Your task to perform on an android device: Go to accessibility settings Image 0: 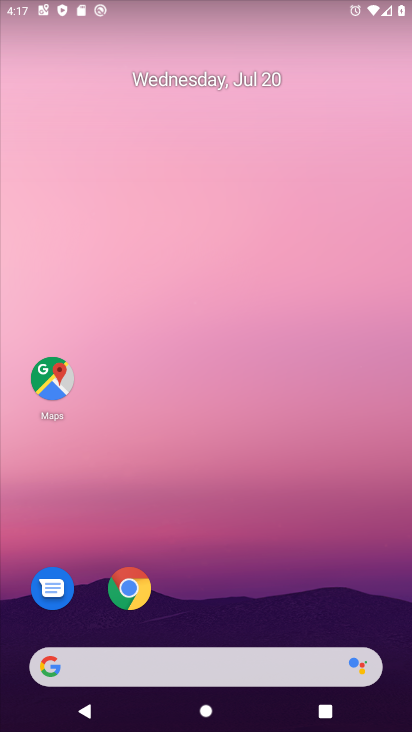
Step 0: drag from (276, 588) to (289, 21)
Your task to perform on an android device: Go to accessibility settings Image 1: 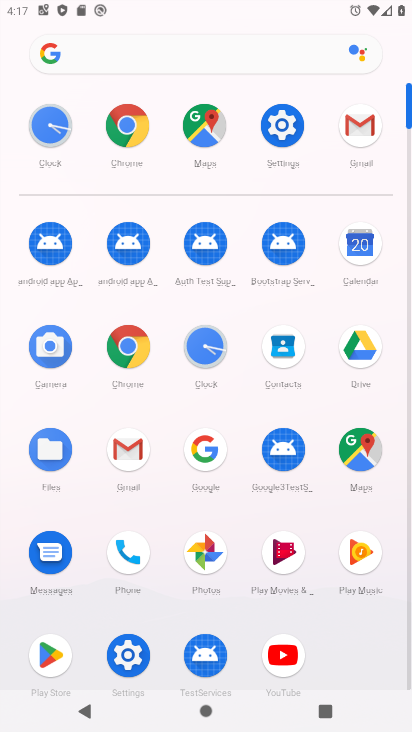
Step 1: click (284, 127)
Your task to perform on an android device: Go to accessibility settings Image 2: 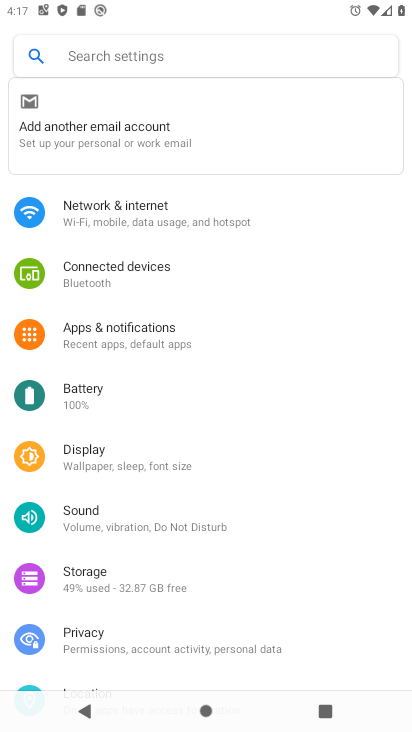
Step 2: click (155, 342)
Your task to perform on an android device: Go to accessibility settings Image 3: 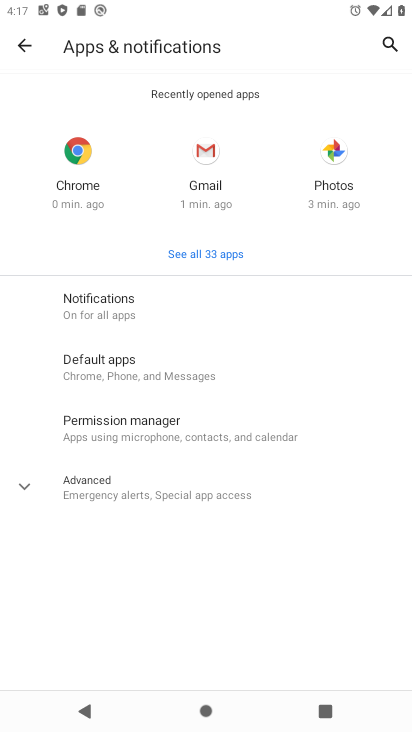
Step 3: click (47, 41)
Your task to perform on an android device: Go to accessibility settings Image 4: 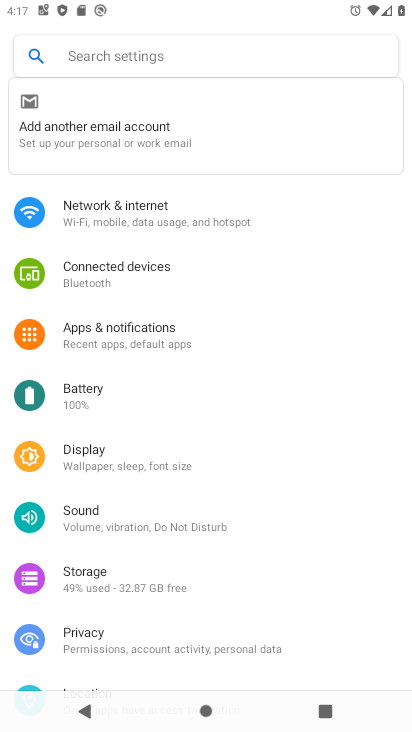
Step 4: drag from (176, 580) to (227, 133)
Your task to perform on an android device: Go to accessibility settings Image 5: 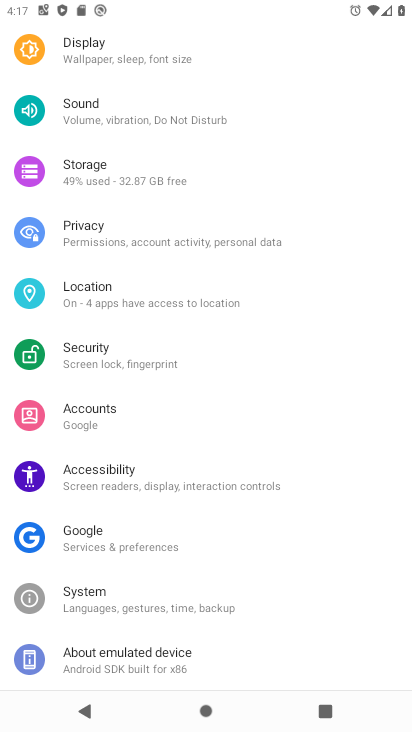
Step 5: click (114, 481)
Your task to perform on an android device: Go to accessibility settings Image 6: 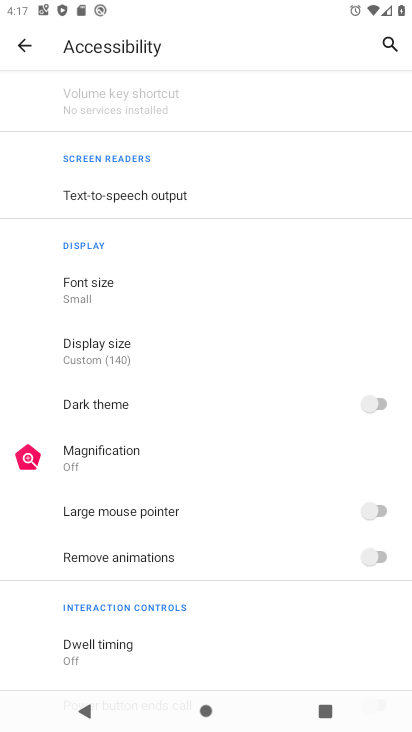
Step 6: task complete